Your task to perform on an android device: manage bookmarks in the chrome app Image 0: 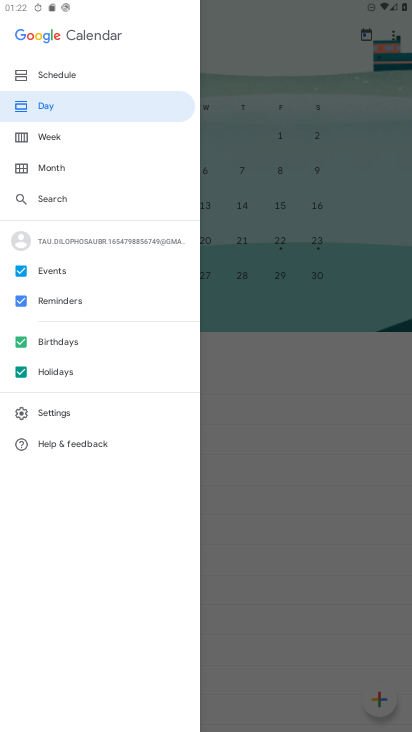
Step 0: press home button
Your task to perform on an android device: manage bookmarks in the chrome app Image 1: 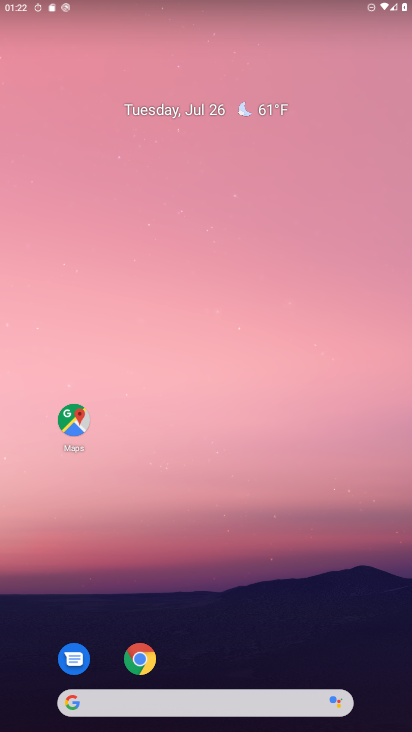
Step 1: click (150, 656)
Your task to perform on an android device: manage bookmarks in the chrome app Image 2: 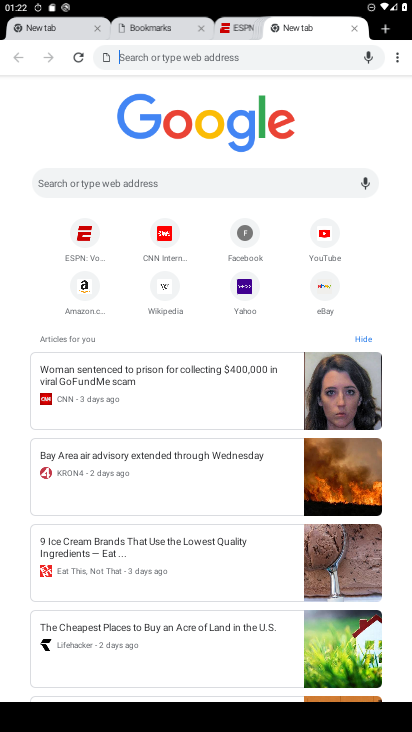
Step 2: click (400, 61)
Your task to perform on an android device: manage bookmarks in the chrome app Image 3: 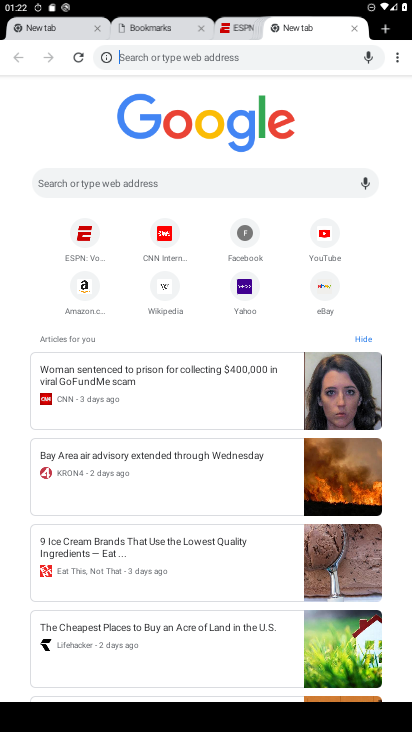
Step 3: click (398, 56)
Your task to perform on an android device: manage bookmarks in the chrome app Image 4: 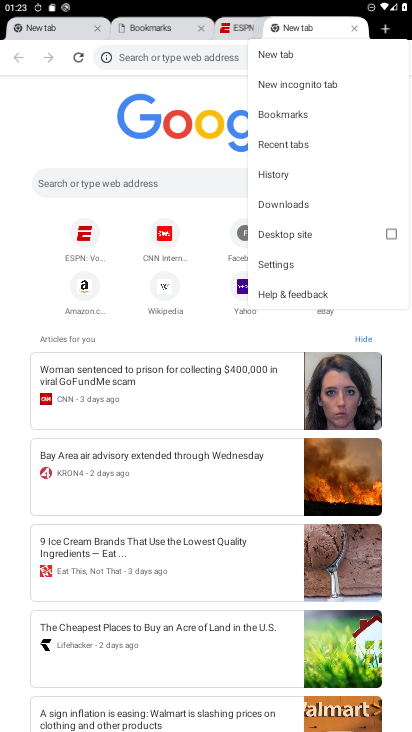
Step 4: click (280, 107)
Your task to perform on an android device: manage bookmarks in the chrome app Image 5: 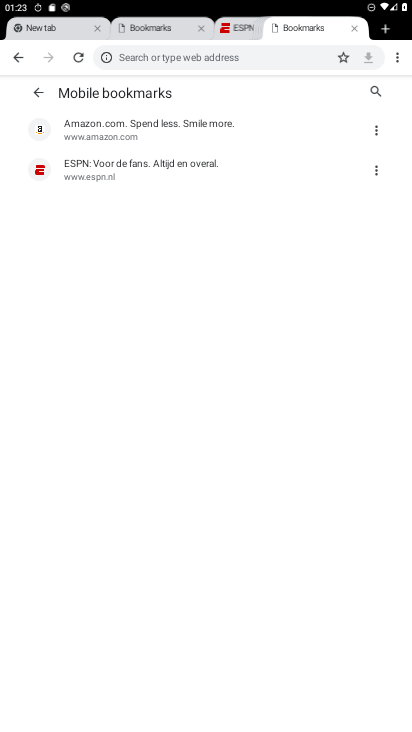
Step 5: task complete